Your task to perform on an android device: Open the map Image 0: 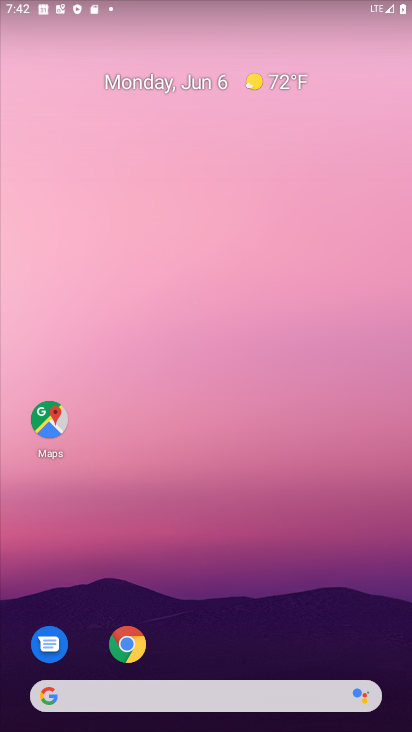
Step 0: drag from (318, 715) to (174, 236)
Your task to perform on an android device: Open the map Image 1: 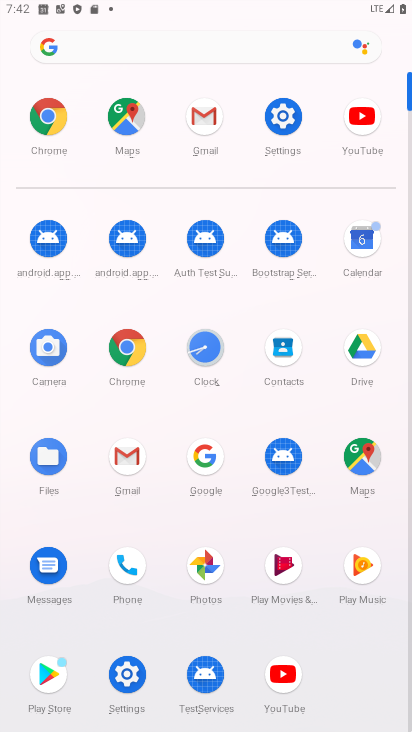
Step 1: click (125, 114)
Your task to perform on an android device: Open the map Image 2: 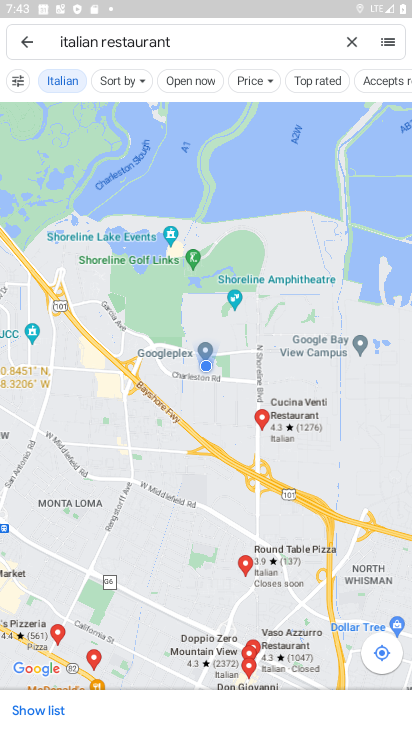
Step 2: click (27, 48)
Your task to perform on an android device: Open the map Image 3: 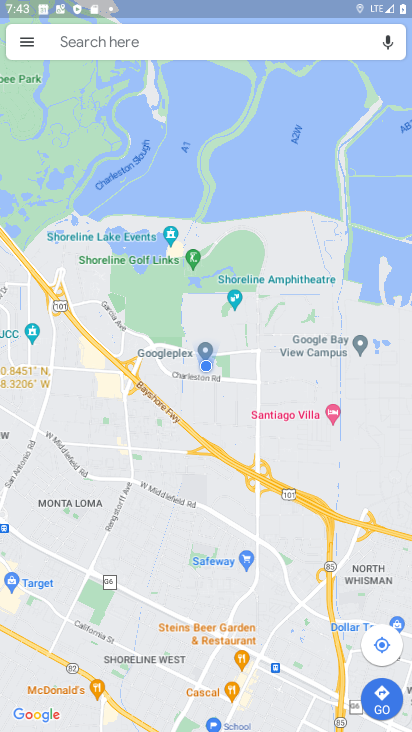
Step 3: task complete